Your task to perform on an android device: turn notification dots off Image 0: 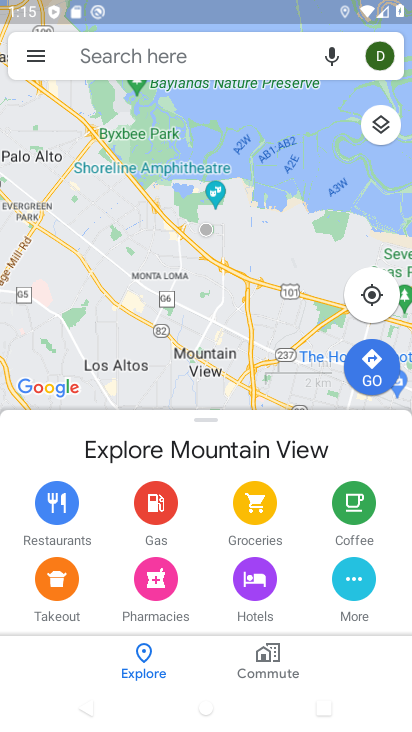
Step 0: press home button
Your task to perform on an android device: turn notification dots off Image 1: 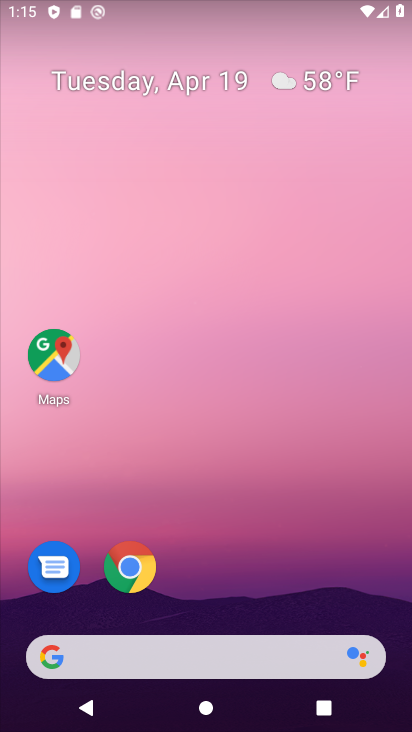
Step 1: drag from (356, 598) to (338, 90)
Your task to perform on an android device: turn notification dots off Image 2: 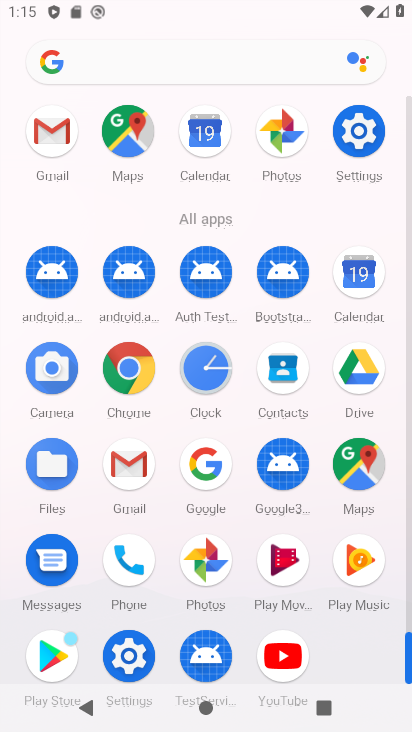
Step 2: click (127, 655)
Your task to perform on an android device: turn notification dots off Image 3: 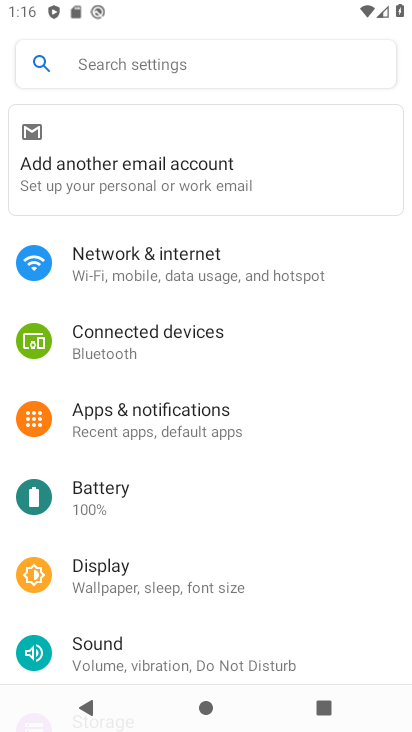
Step 3: click (156, 420)
Your task to perform on an android device: turn notification dots off Image 4: 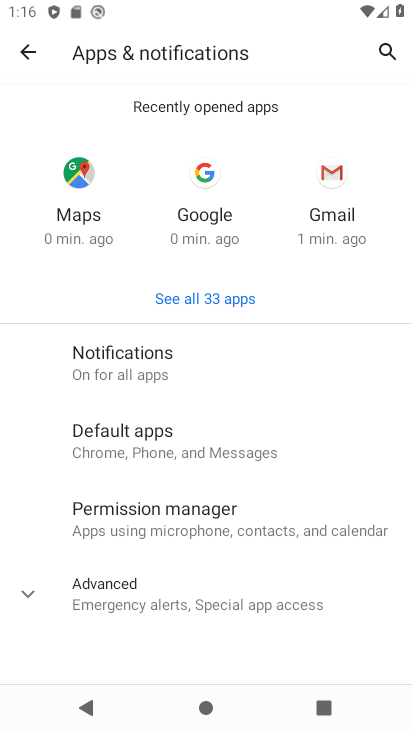
Step 4: click (127, 373)
Your task to perform on an android device: turn notification dots off Image 5: 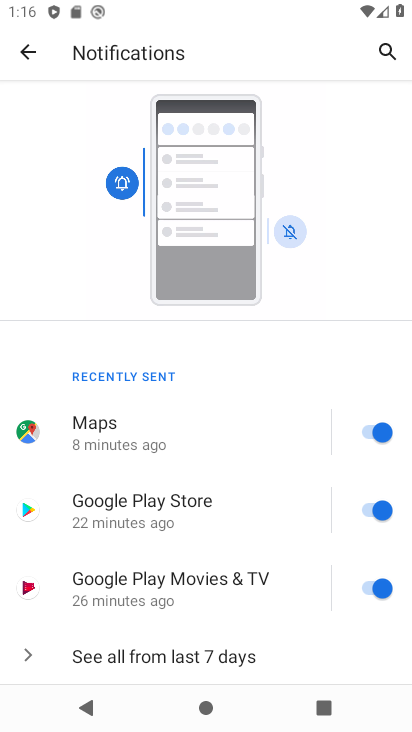
Step 5: drag from (332, 645) to (324, 187)
Your task to perform on an android device: turn notification dots off Image 6: 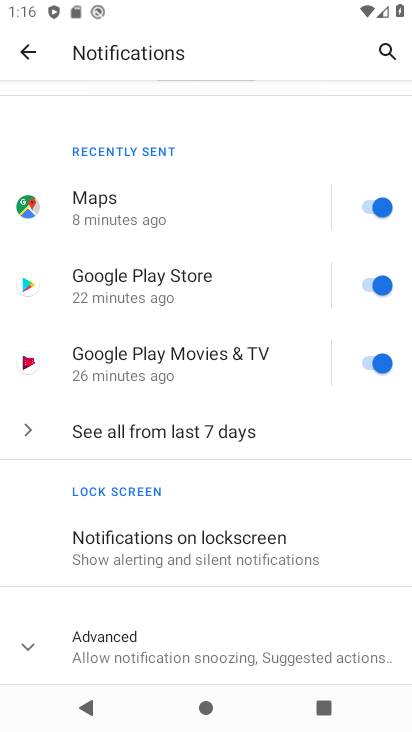
Step 6: click (23, 643)
Your task to perform on an android device: turn notification dots off Image 7: 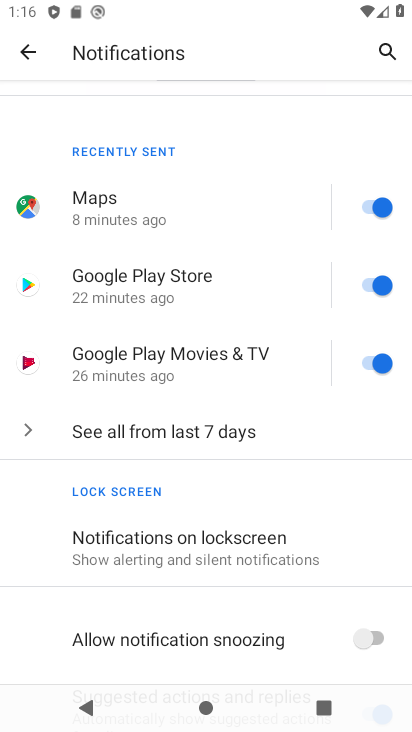
Step 7: drag from (300, 624) to (326, 238)
Your task to perform on an android device: turn notification dots off Image 8: 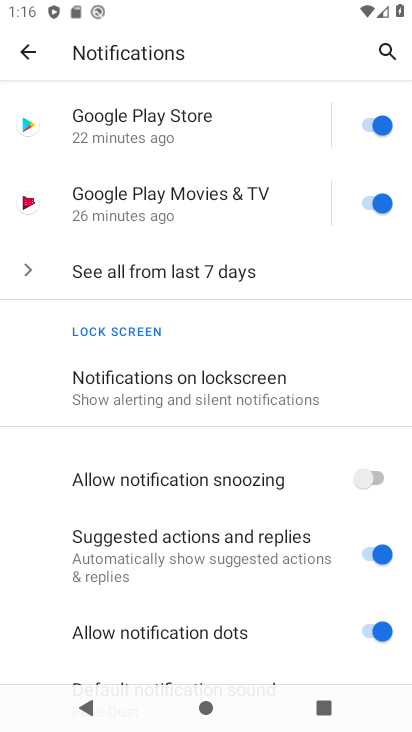
Step 8: click (363, 631)
Your task to perform on an android device: turn notification dots off Image 9: 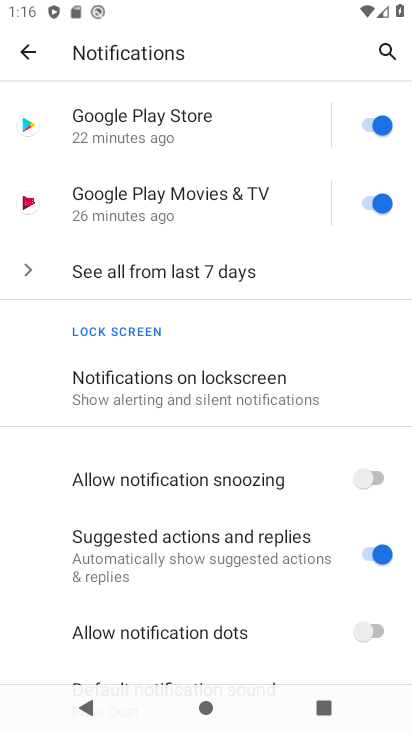
Step 9: task complete